Your task to perform on an android device: toggle improve location accuracy Image 0: 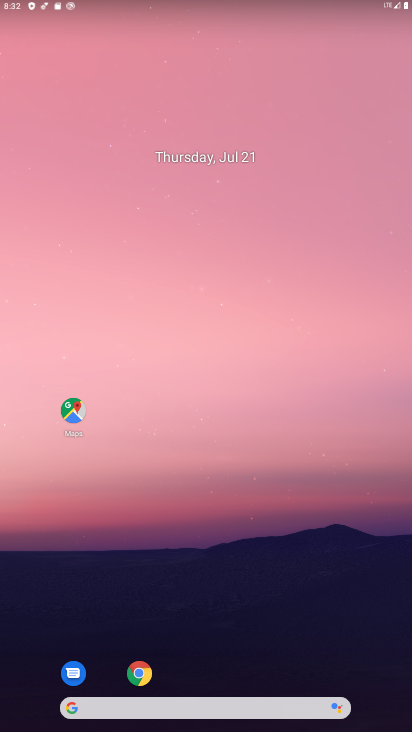
Step 0: drag from (184, 663) to (191, 254)
Your task to perform on an android device: toggle improve location accuracy Image 1: 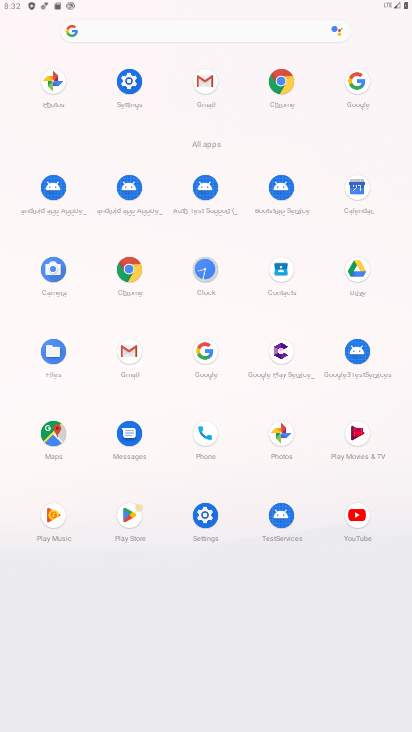
Step 1: click (126, 75)
Your task to perform on an android device: toggle improve location accuracy Image 2: 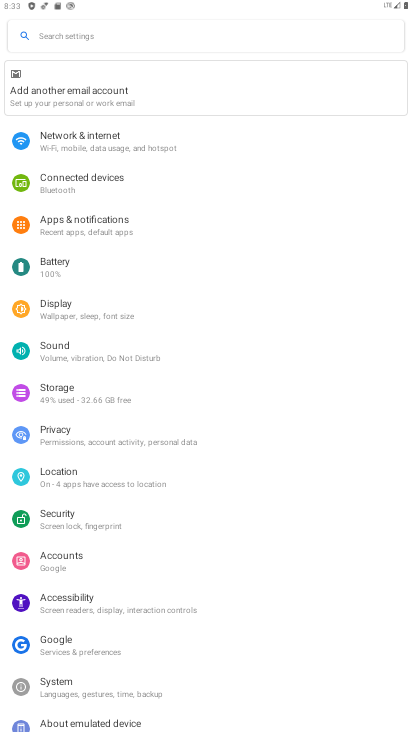
Step 2: click (87, 470)
Your task to perform on an android device: toggle improve location accuracy Image 3: 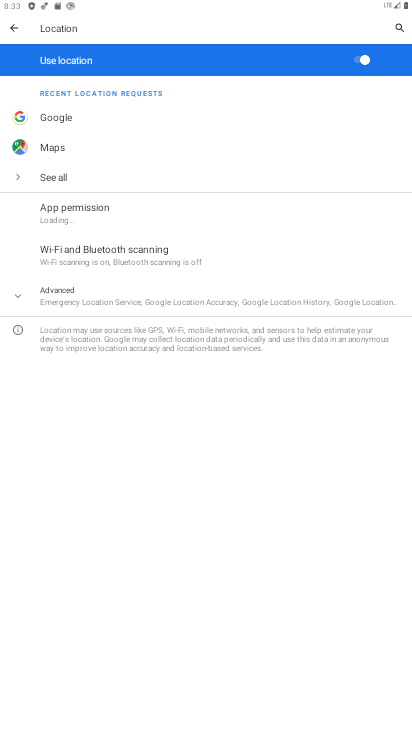
Step 3: click (98, 296)
Your task to perform on an android device: toggle improve location accuracy Image 4: 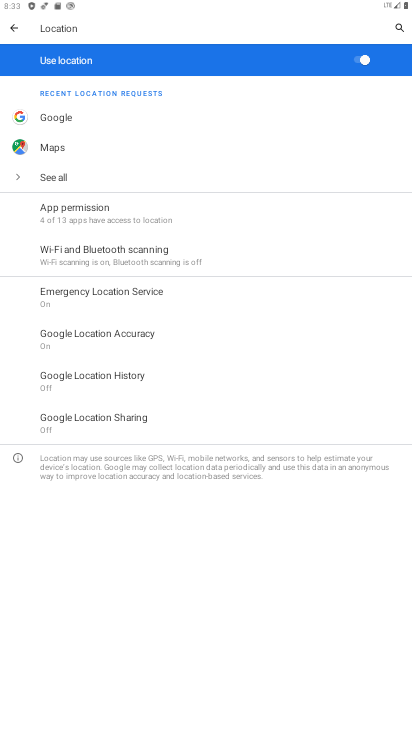
Step 4: click (167, 348)
Your task to perform on an android device: toggle improve location accuracy Image 5: 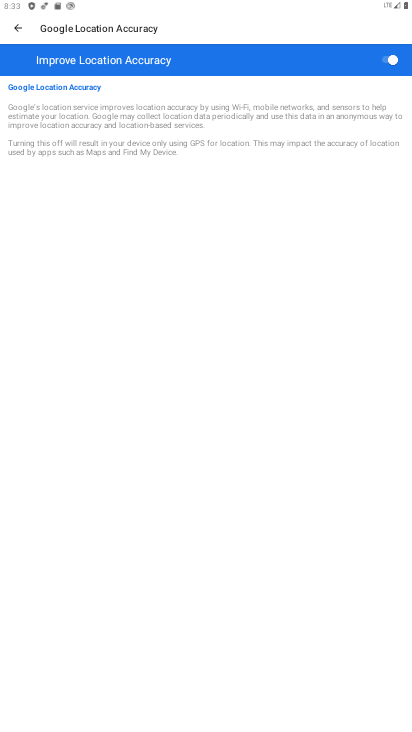
Step 5: click (384, 67)
Your task to perform on an android device: toggle improve location accuracy Image 6: 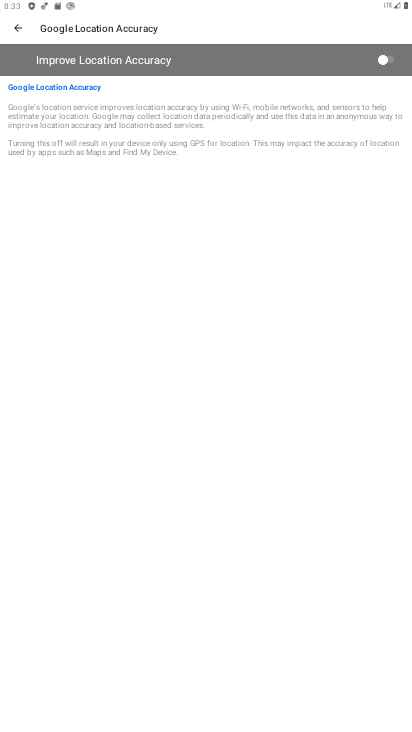
Step 6: task complete